Your task to perform on an android device: toggle airplane mode Image 0: 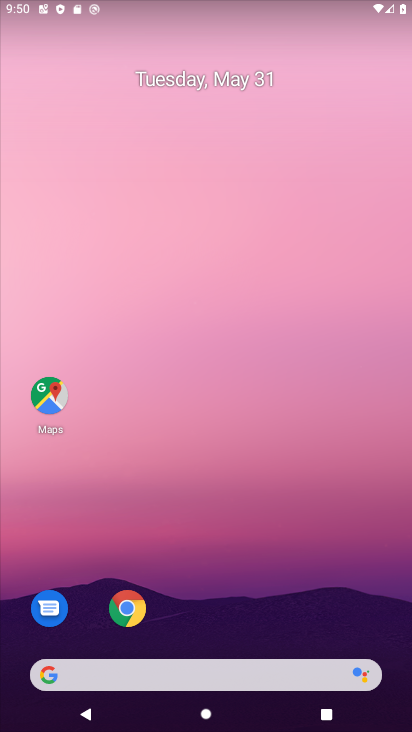
Step 0: drag from (195, 640) to (304, 10)
Your task to perform on an android device: toggle airplane mode Image 1: 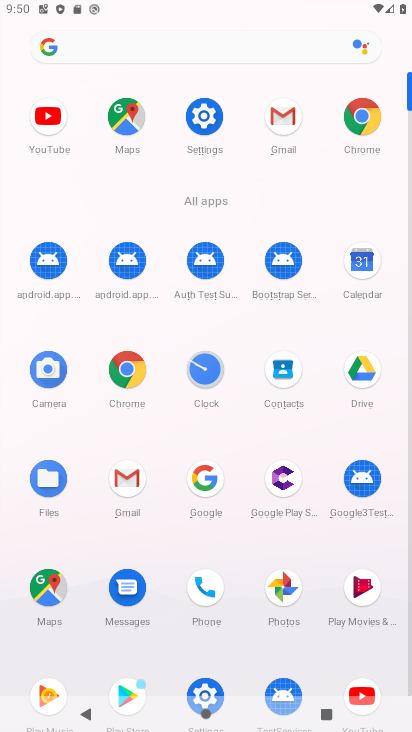
Step 1: click (198, 101)
Your task to perform on an android device: toggle airplane mode Image 2: 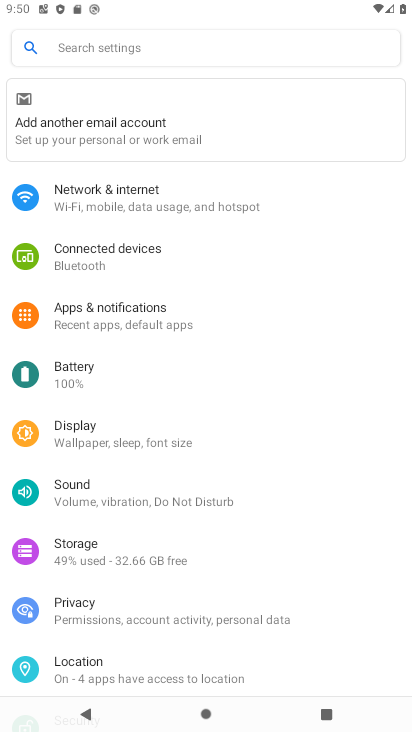
Step 2: click (161, 200)
Your task to perform on an android device: toggle airplane mode Image 3: 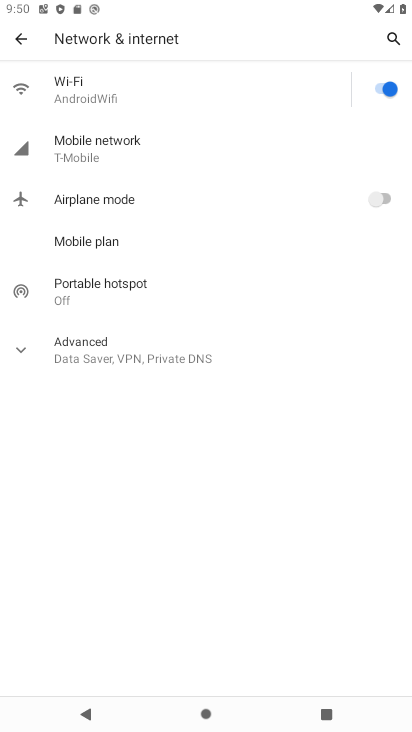
Step 3: click (378, 190)
Your task to perform on an android device: toggle airplane mode Image 4: 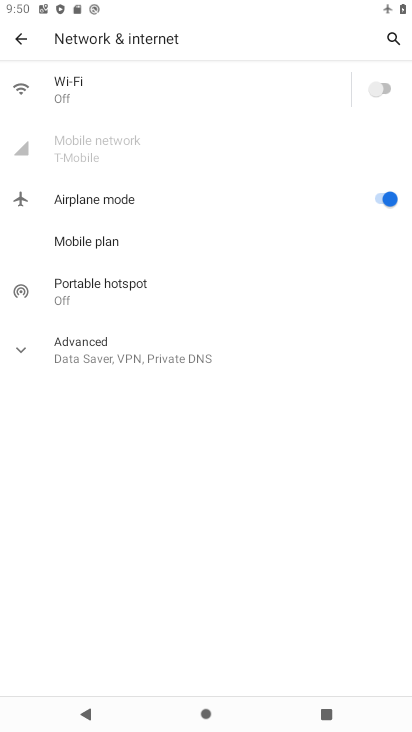
Step 4: task complete